Your task to perform on an android device: Add "logitech g933" to the cart on ebay, then select checkout. Image 0: 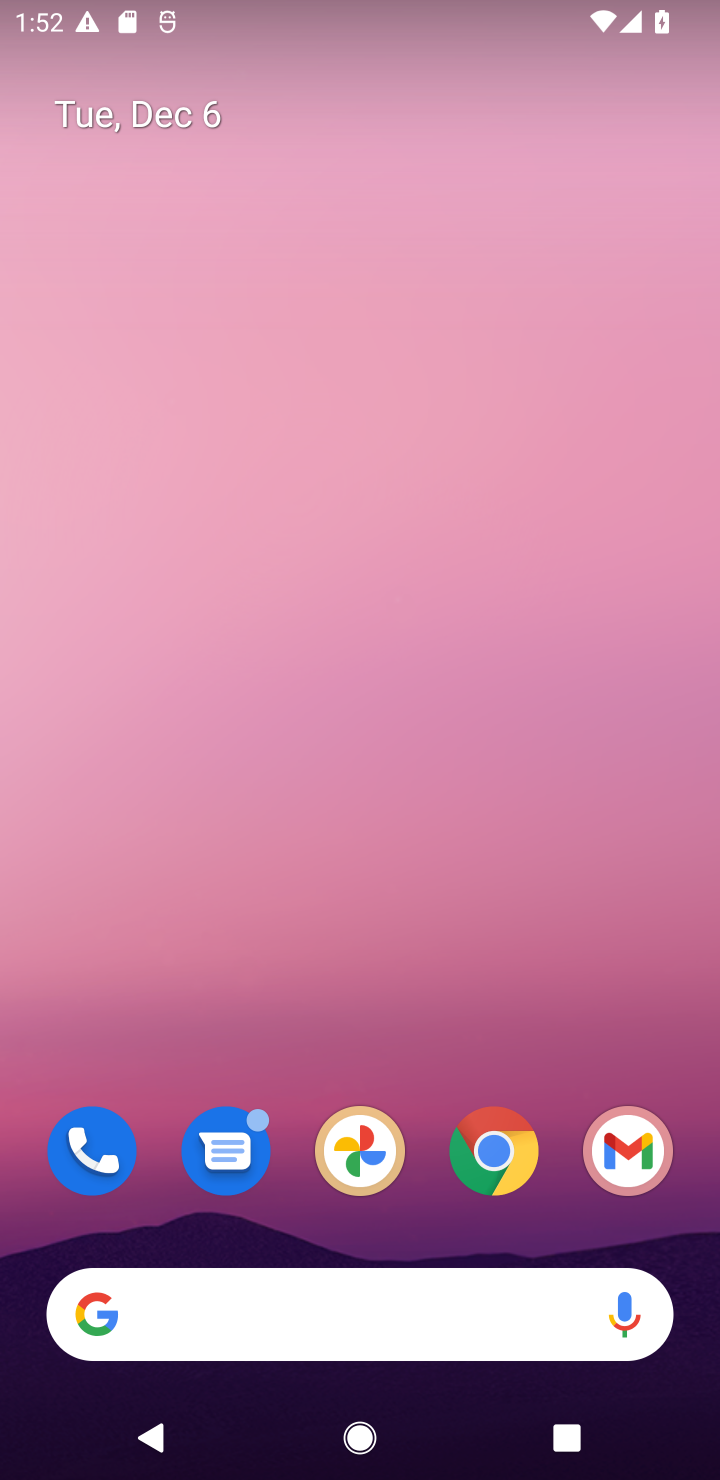
Step 0: click (493, 1156)
Your task to perform on an android device: Add "logitech g933" to the cart on ebay, then select checkout. Image 1: 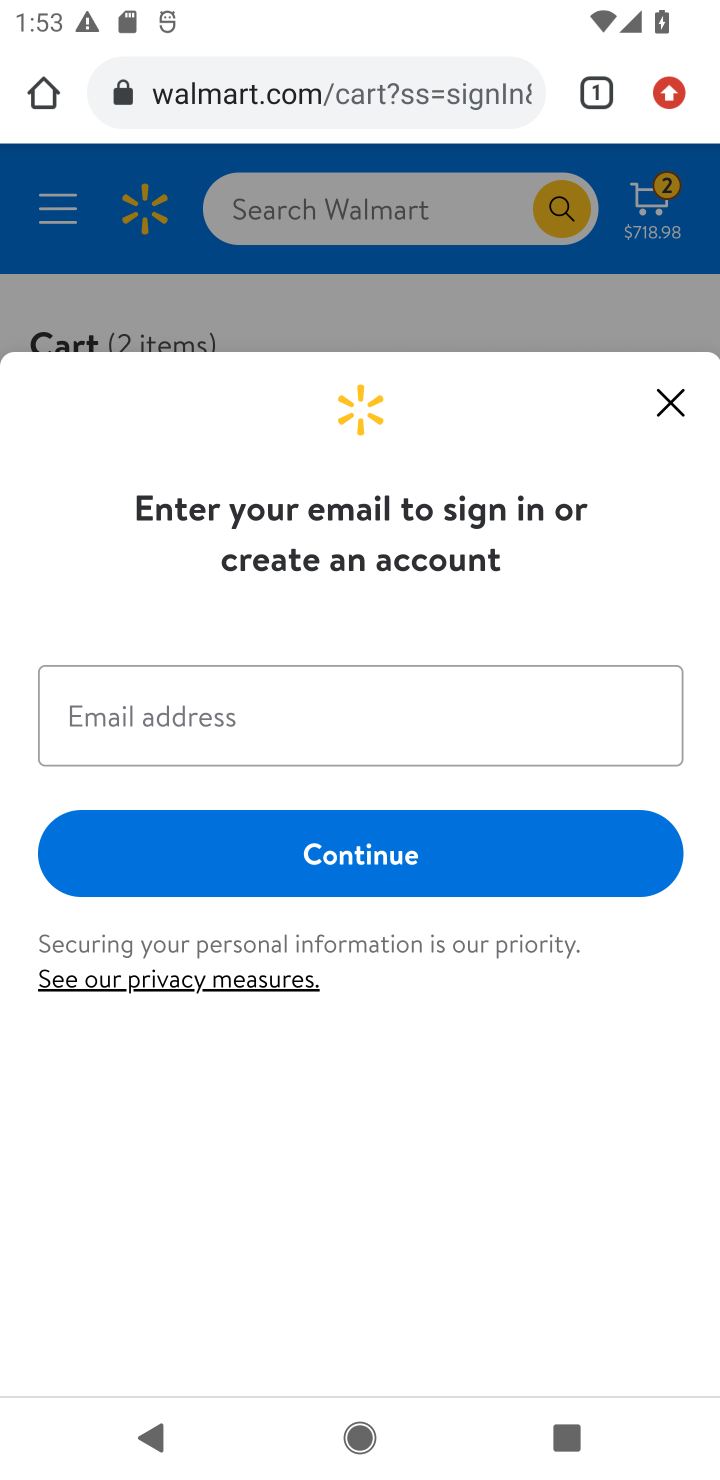
Step 1: click (357, 101)
Your task to perform on an android device: Add "logitech g933" to the cart on ebay, then select checkout. Image 2: 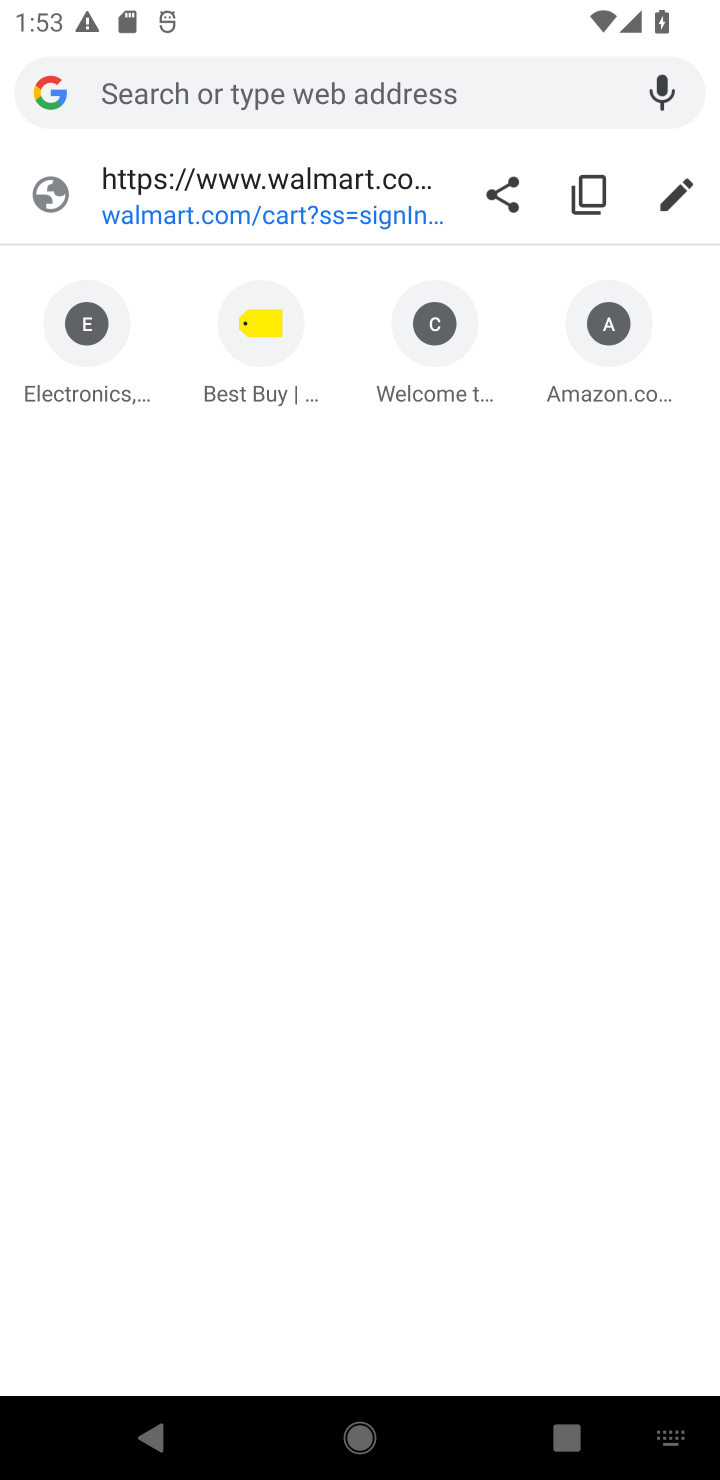
Step 2: type "ebay.com"
Your task to perform on an android device: Add "logitech g933" to the cart on ebay, then select checkout. Image 3: 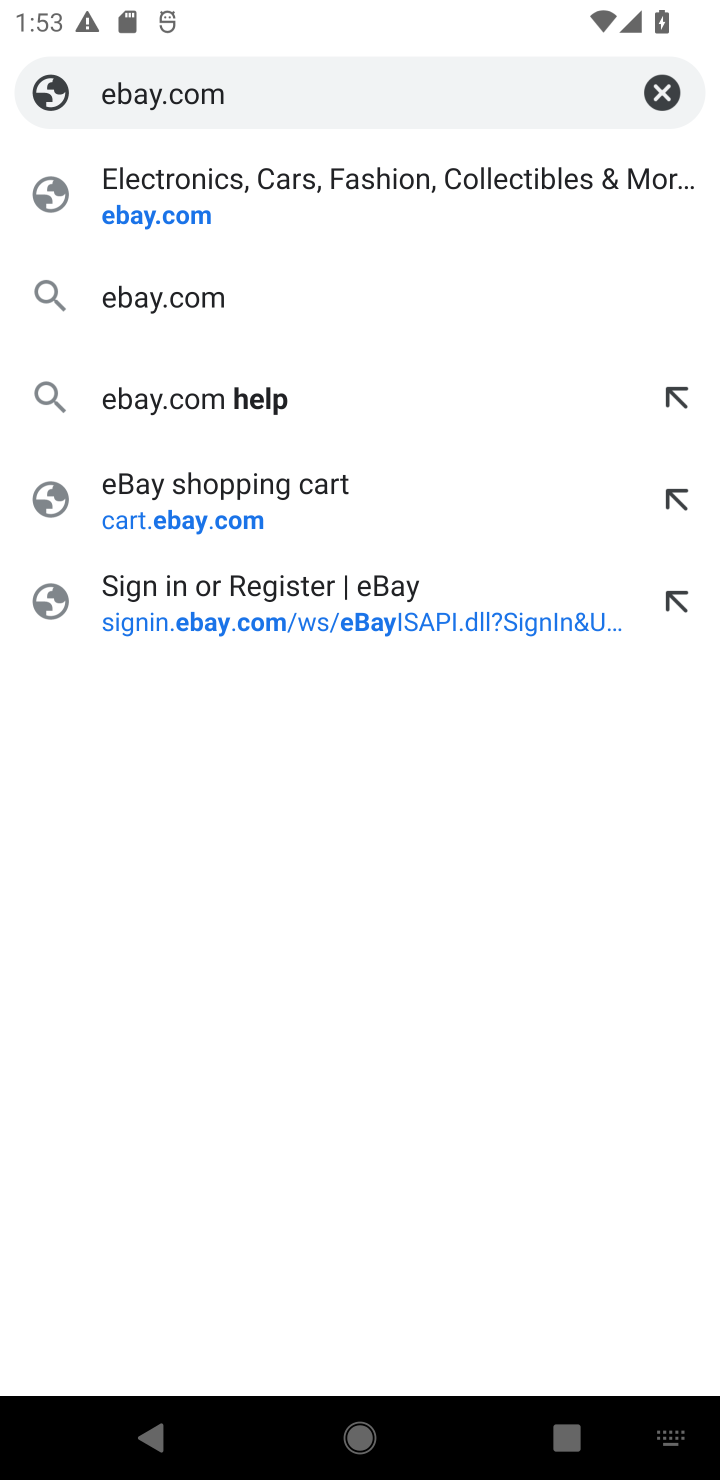
Step 3: click (170, 229)
Your task to perform on an android device: Add "logitech g933" to the cart on ebay, then select checkout. Image 4: 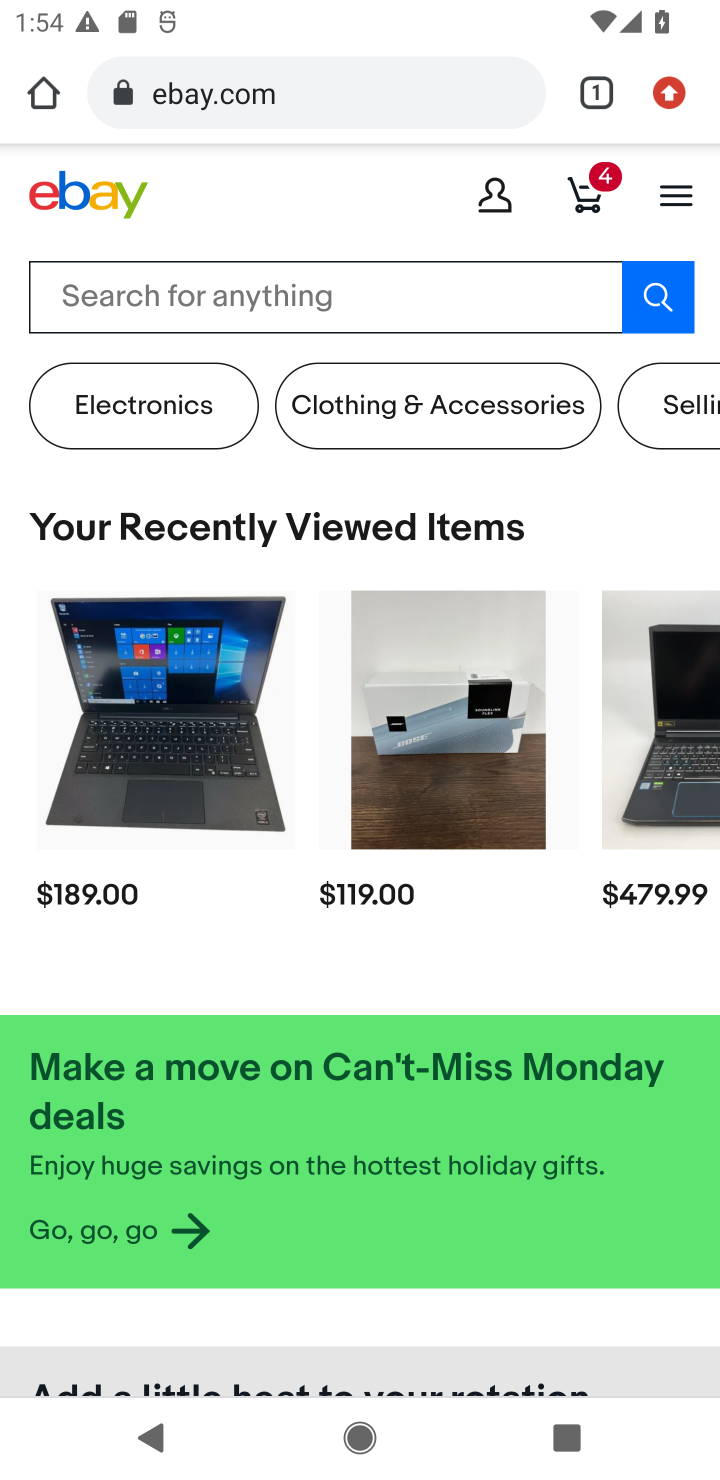
Step 4: click (173, 304)
Your task to perform on an android device: Add "logitech g933" to the cart on ebay, then select checkout. Image 5: 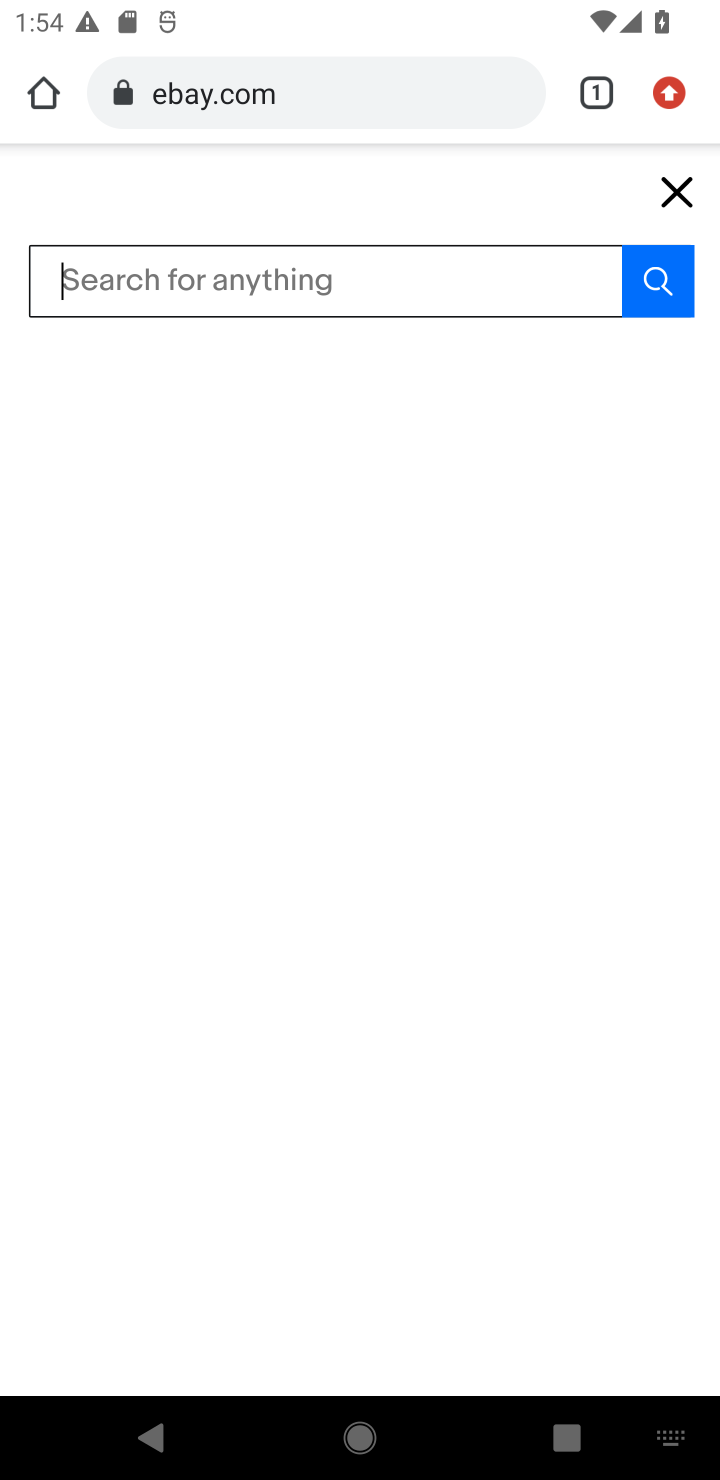
Step 5: type "logitech g933"
Your task to perform on an android device: Add "logitech g933" to the cart on ebay, then select checkout. Image 6: 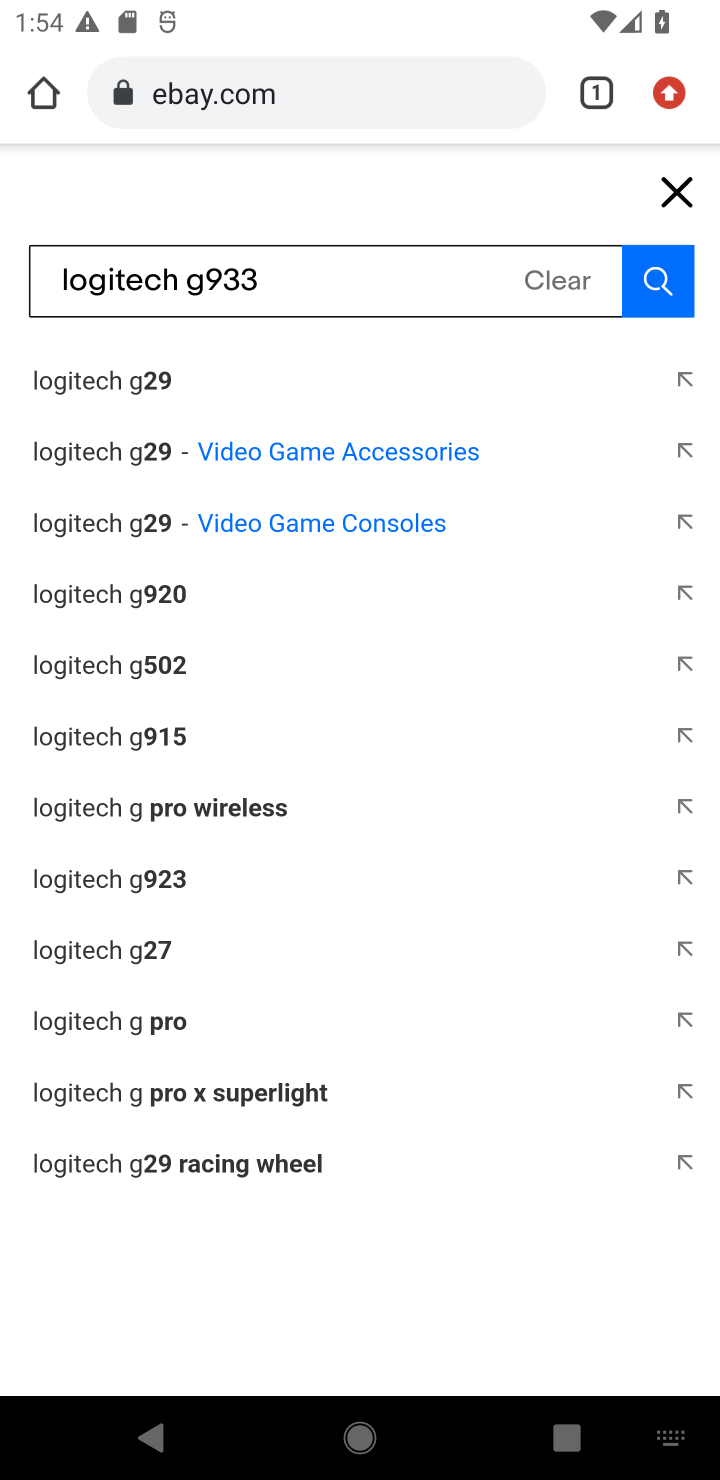
Step 6: click (658, 289)
Your task to perform on an android device: Add "logitech g933" to the cart on ebay, then select checkout. Image 7: 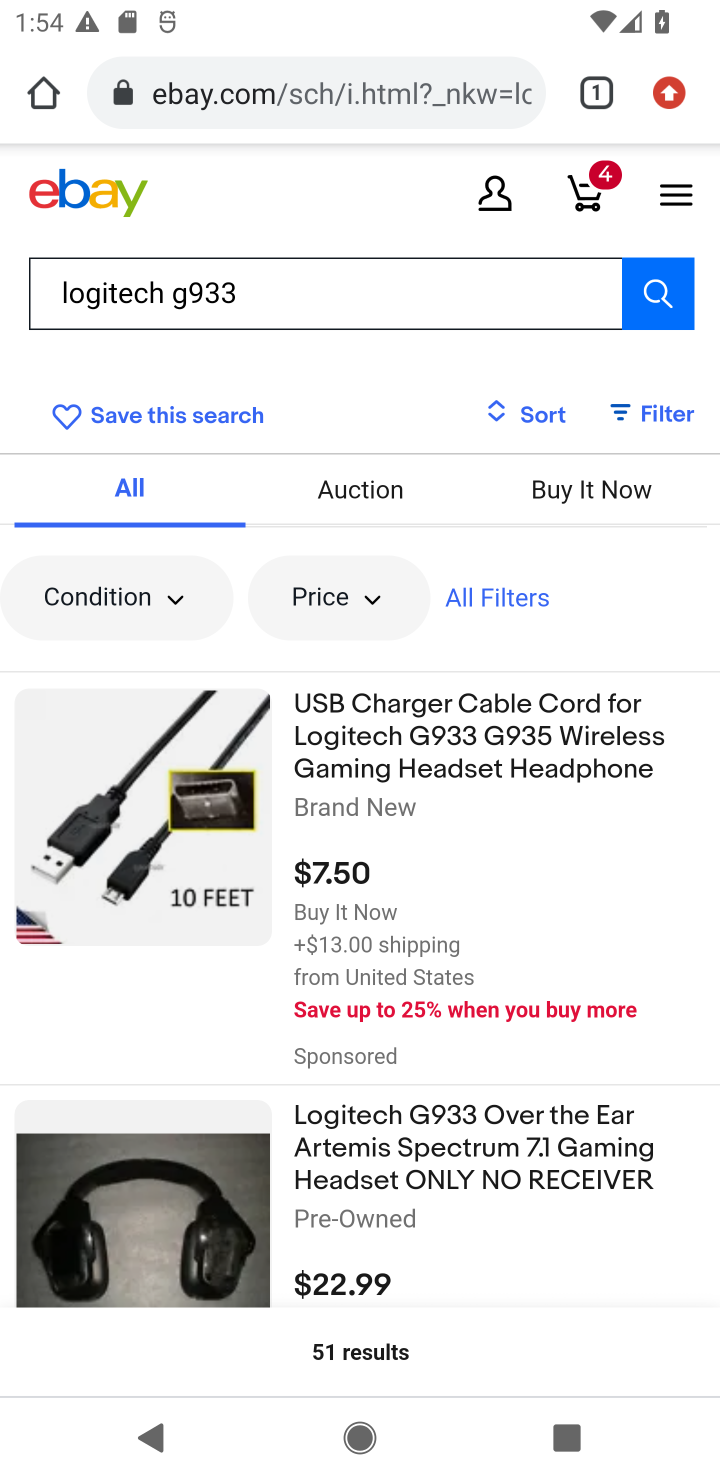
Step 7: click (371, 743)
Your task to perform on an android device: Add "logitech g933" to the cart on ebay, then select checkout. Image 8: 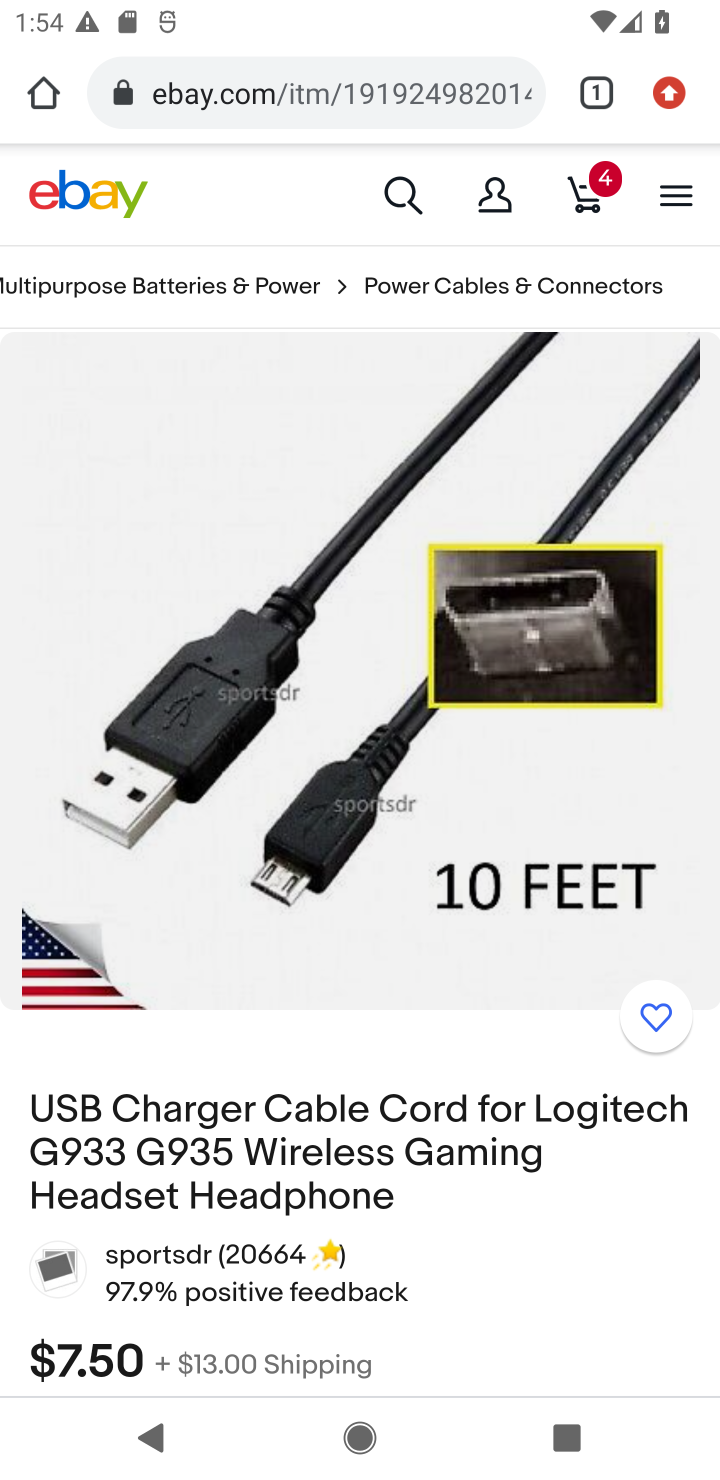
Step 8: drag from (305, 1104) to (284, 622)
Your task to perform on an android device: Add "logitech g933" to the cart on ebay, then select checkout. Image 9: 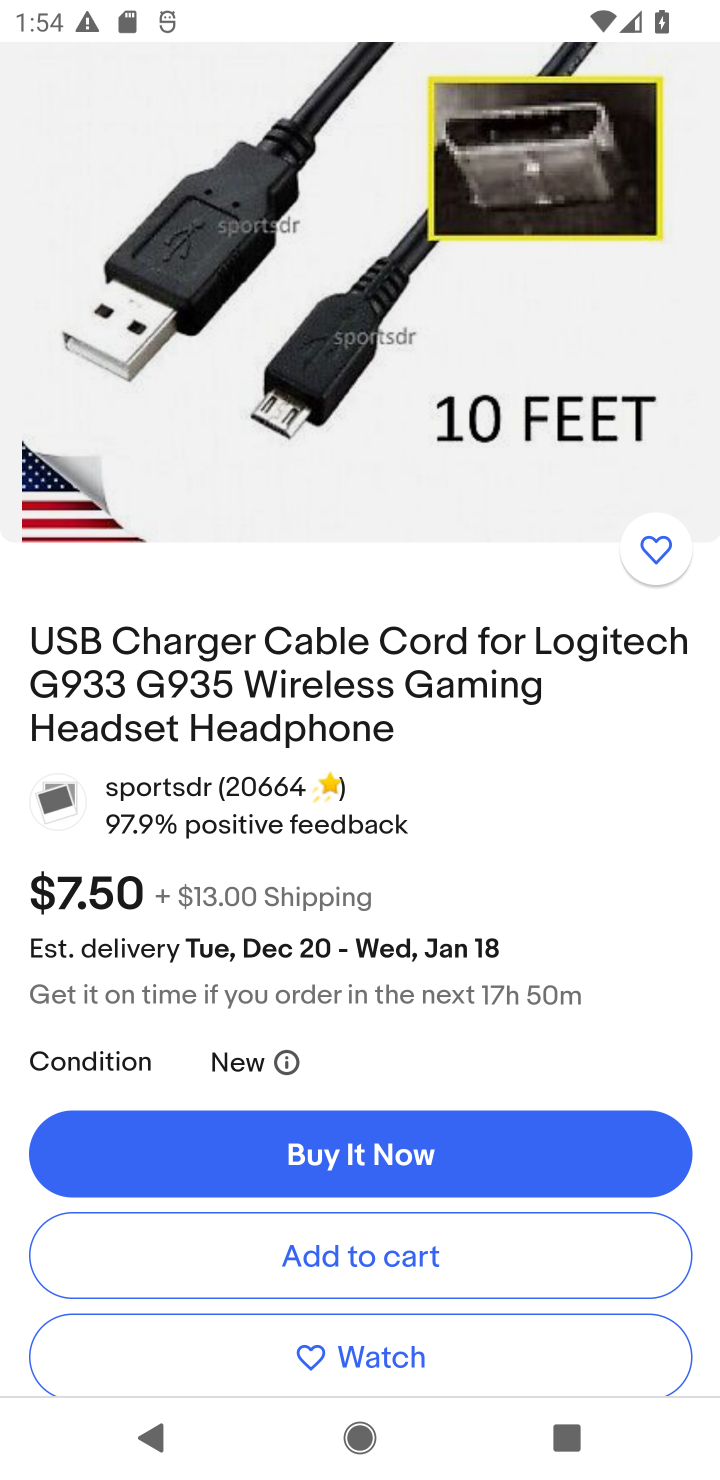
Step 9: drag from (364, 824) to (302, 418)
Your task to perform on an android device: Add "logitech g933" to the cart on ebay, then select checkout. Image 10: 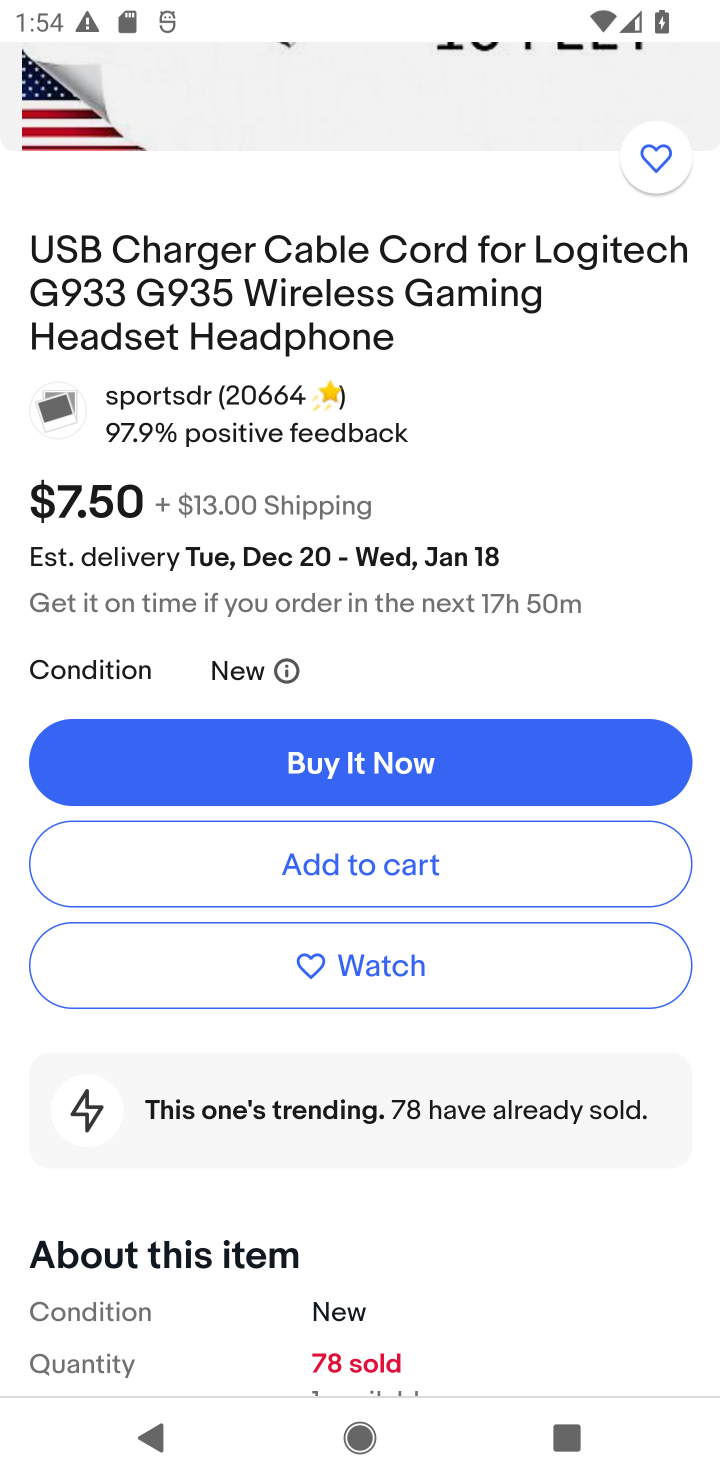
Step 10: click (288, 852)
Your task to perform on an android device: Add "logitech g933" to the cart on ebay, then select checkout. Image 11: 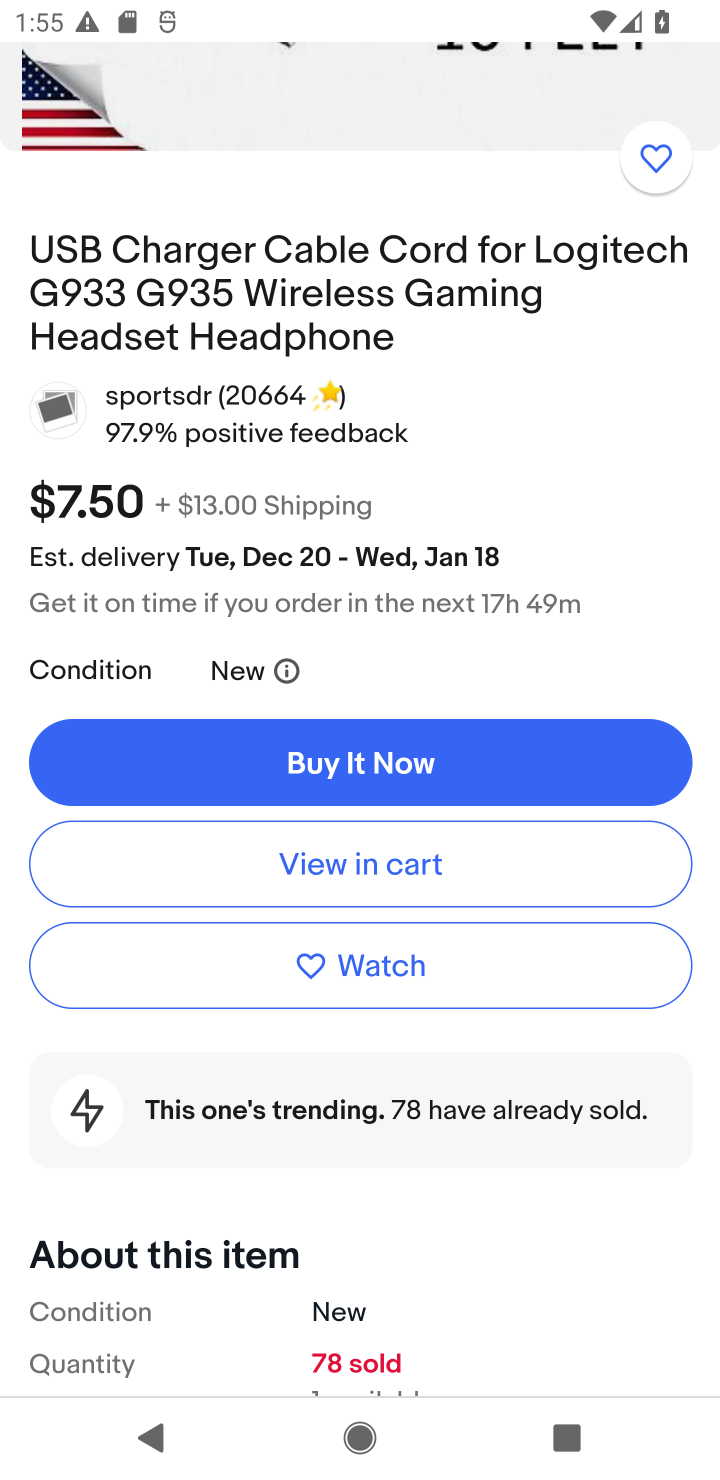
Step 11: click (290, 858)
Your task to perform on an android device: Add "logitech g933" to the cart on ebay, then select checkout. Image 12: 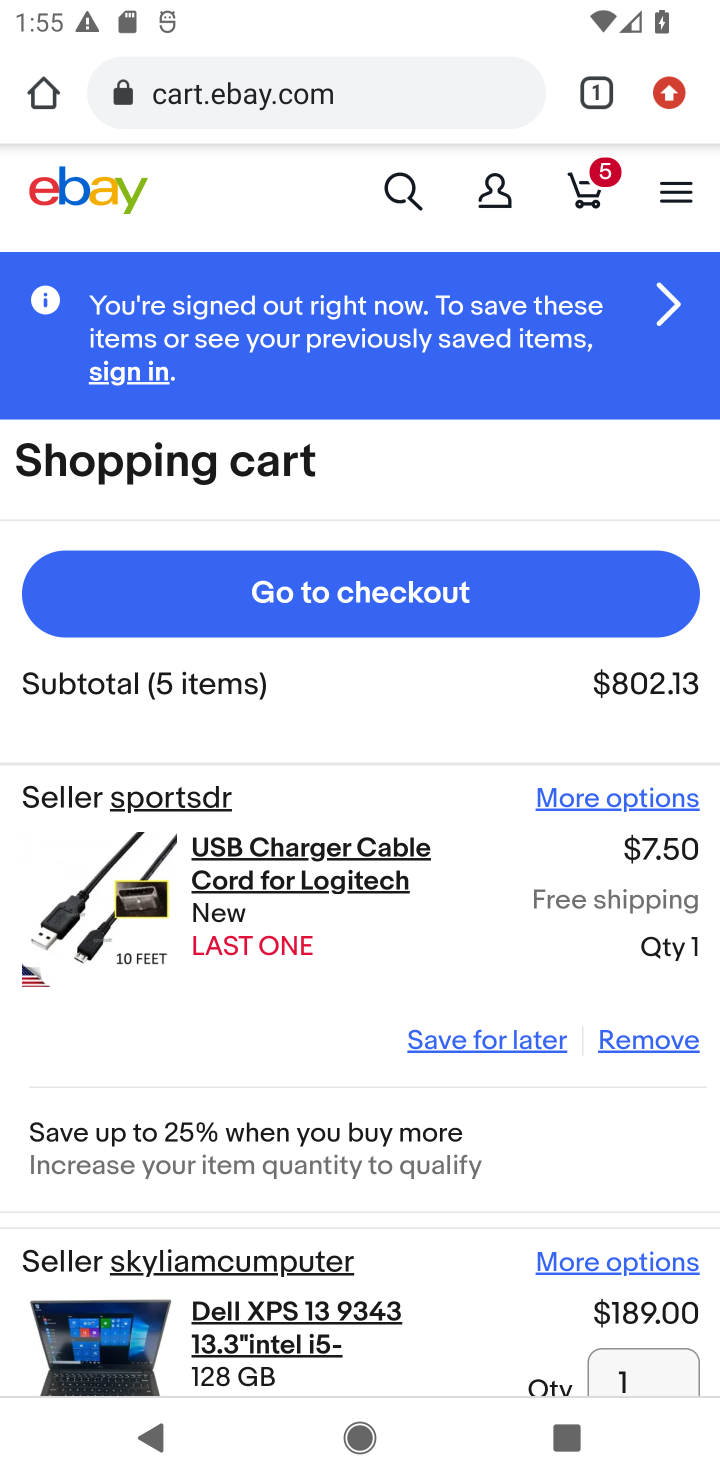
Step 12: click (372, 604)
Your task to perform on an android device: Add "logitech g933" to the cart on ebay, then select checkout. Image 13: 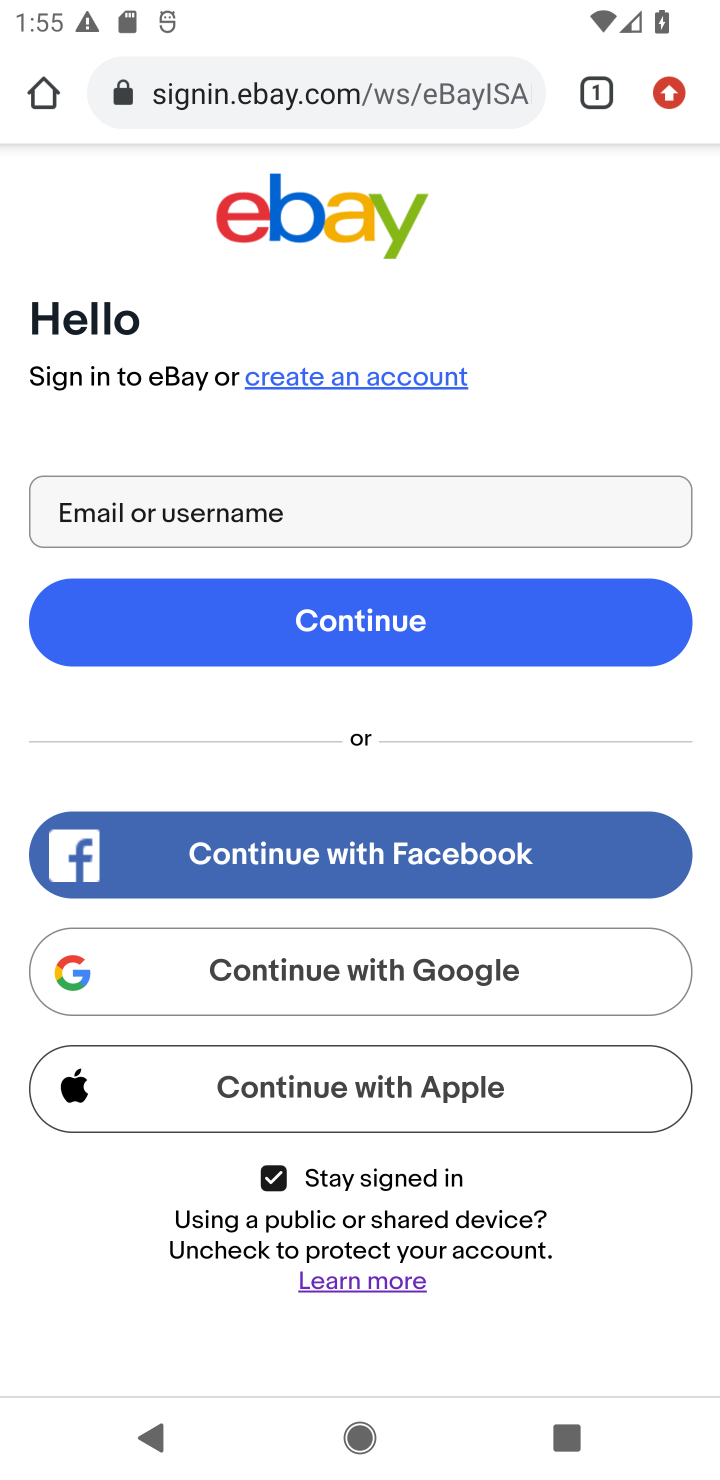
Step 13: task complete